Your task to perform on an android device: Open calendar and show me the third week of next month Image 0: 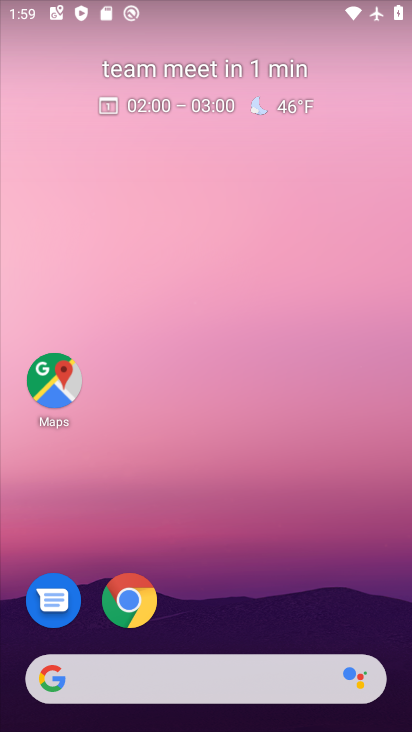
Step 0: drag from (184, 652) to (101, 20)
Your task to perform on an android device: Open calendar and show me the third week of next month Image 1: 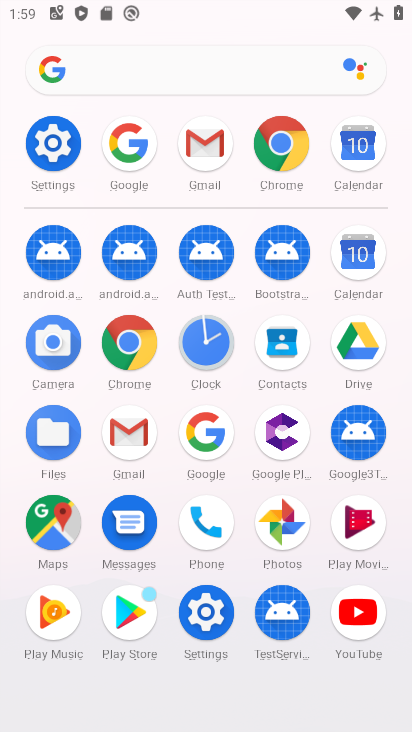
Step 1: click (359, 254)
Your task to perform on an android device: Open calendar and show me the third week of next month Image 2: 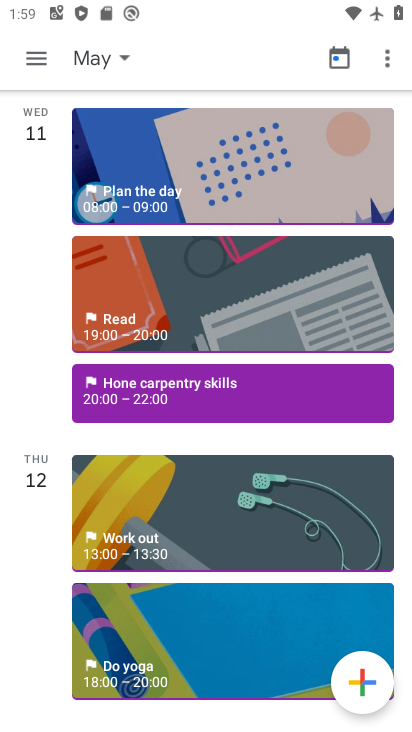
Step 2: click (18, 57)
Your task to perform on an android device: Open calendar and show me the third week of next month Image 3: 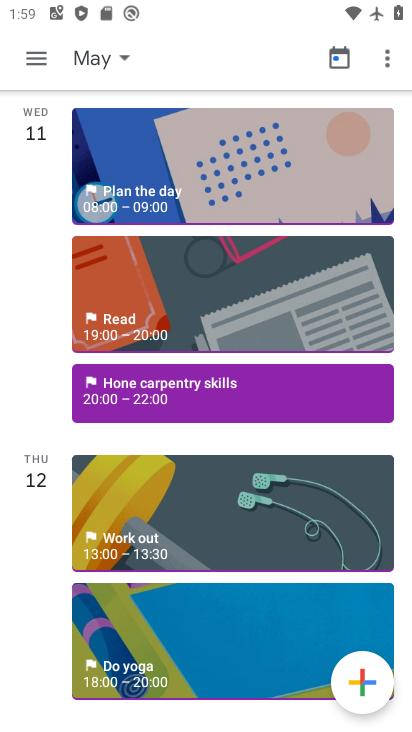
Step 3: click (33, 54)
Your task to perform on an android device: Open calendar and show me the third week of next month Image 4: 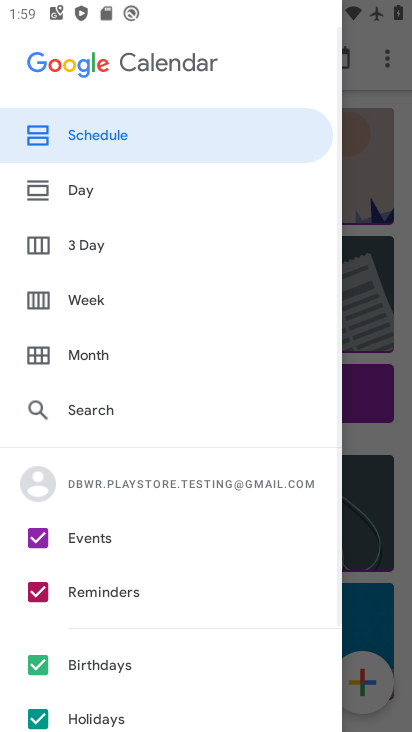
Step 4: click (53, 296)
Your task to perform on an android device: Open calendar and show me the third week of next month Image 5: 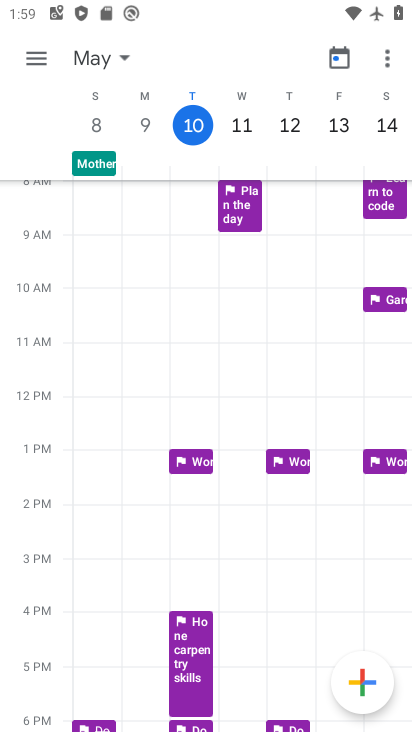
Step 5: task complete